Your task to perform on an android device: see tabs open on other devices in the chrome app Image 0: 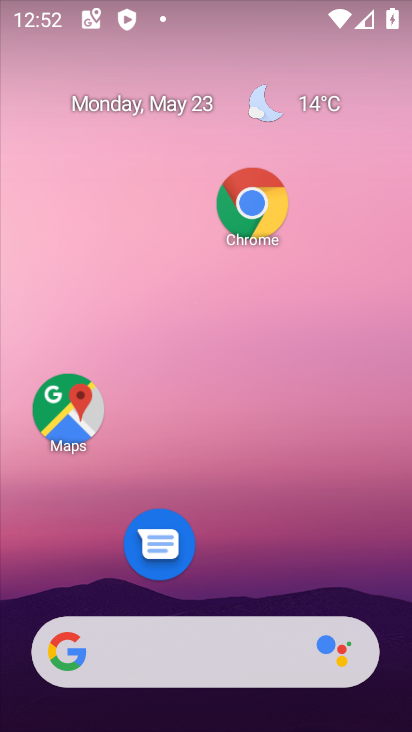
Step 0: click (262, 201)
Your task to perform on an android device: see tabs open on other devices in the chrome app Image 1: 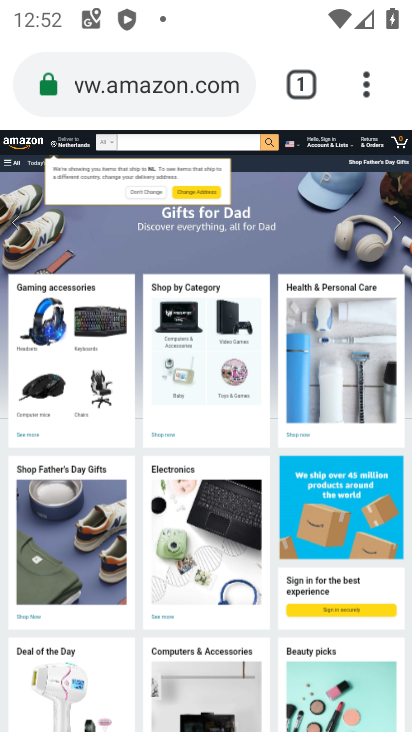
Step 1: task complete